Your task to perform on an android device: turn off airplane mode Image 0: 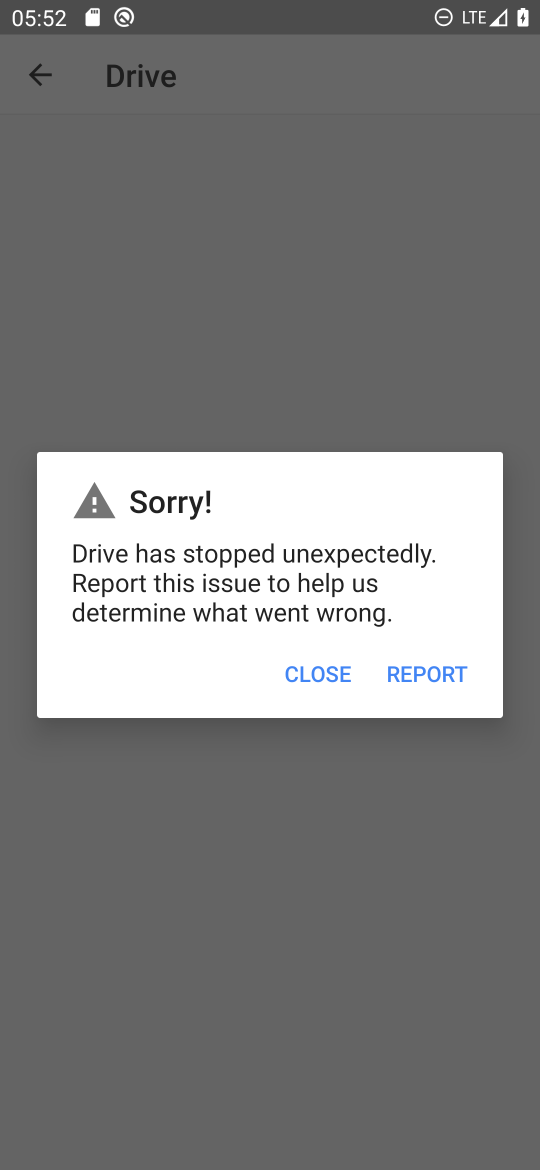
Step 0: press home button
Your task to perform on an android device: turn off airplane mode Image 1: 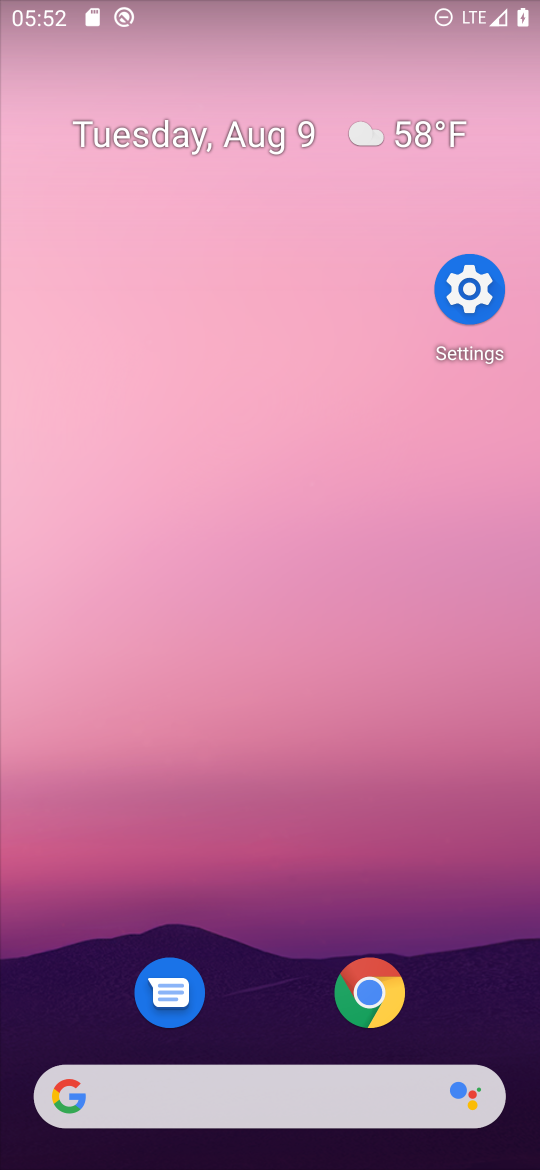
Step 1: task complete